Your task to perform on an android device: Show me popular games on the Play Store Image 0: 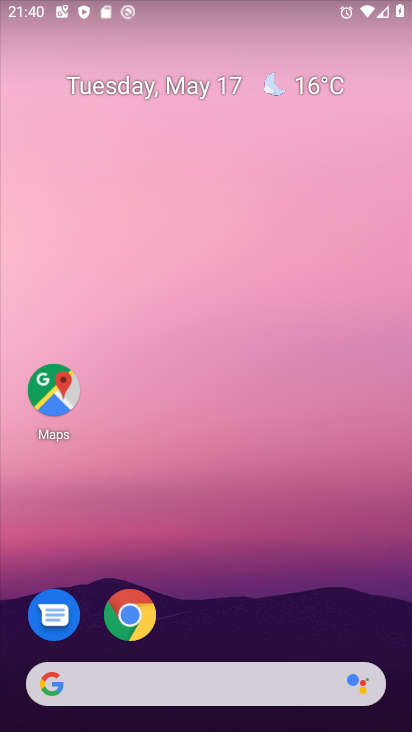
Step 0: drag from (349, 612) to (308, 102)
Your task to perform on an android device: Show me popular games on the Play Store Image 1: 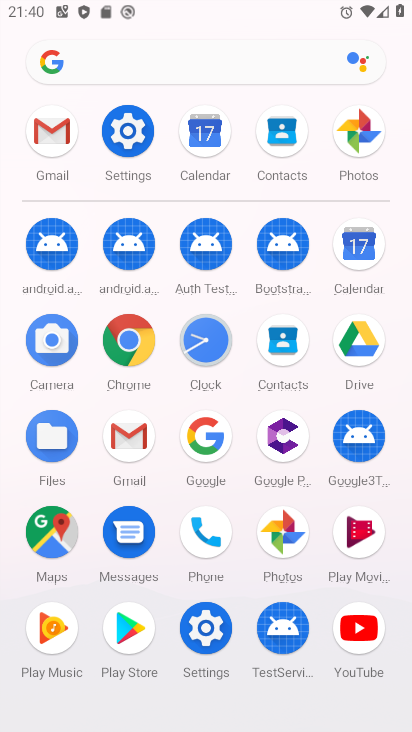
Step 1: click (144, 626)
Your task to perform on an android device: Show me popular games on the Play Store Image 2: 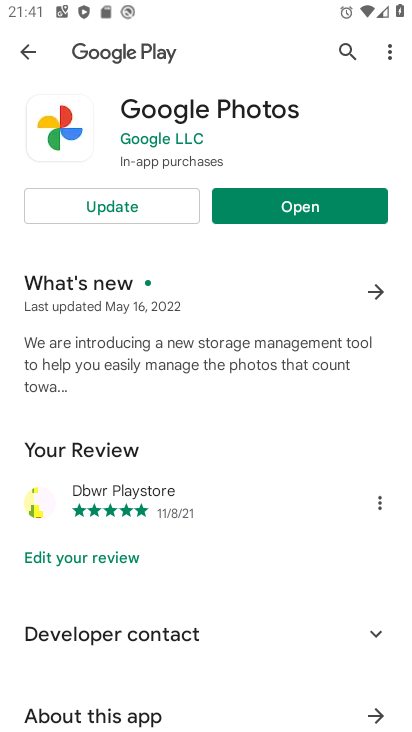
Step 2: click (27, 53)
Your task to perform on an android device: Show me popular games on the Play Store Image 3: 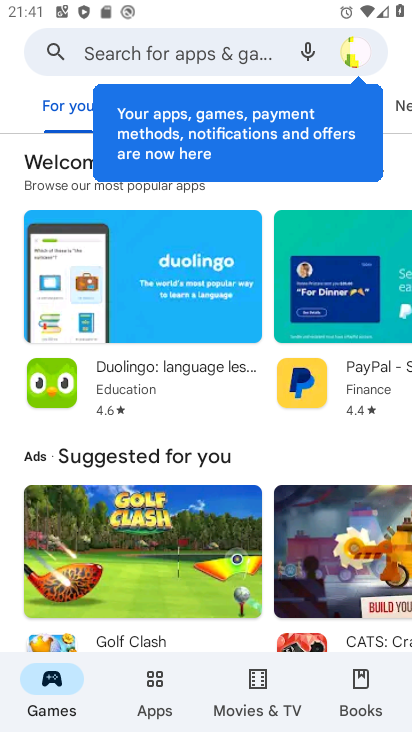
Step 3: click (160, 679)
Your task to perform on an android device: Show me popular games on the Play Store Image 4: 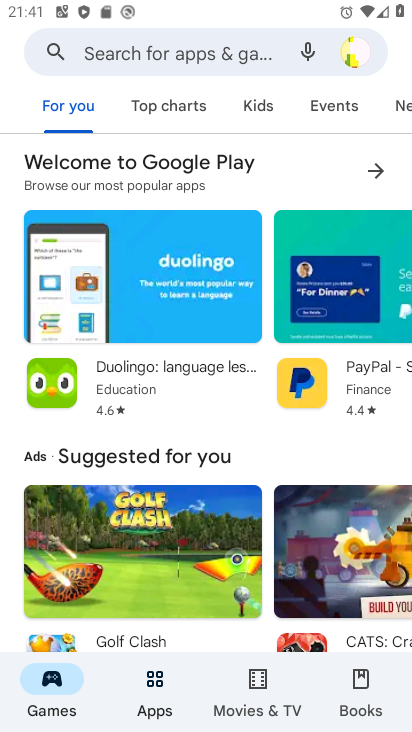
Step 4: drag from (160, 679) to (193, 256)
Your task to perform on an android device: Show me popular games on the Play Store Image 5: 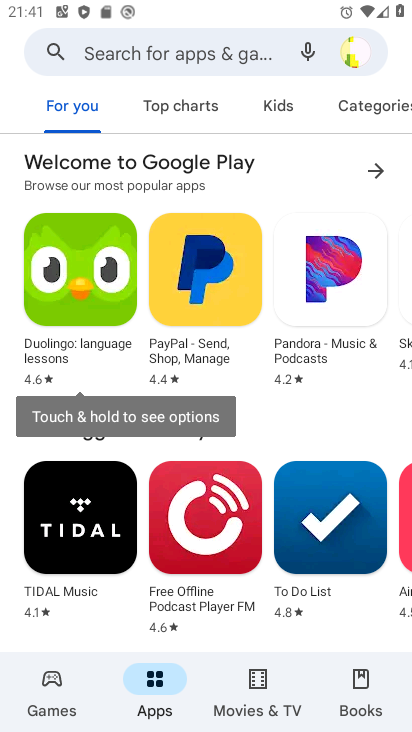
Step 5: click (199, 101)
Your task to perform on an android device: Show me popular games on the Play Store Image 6: 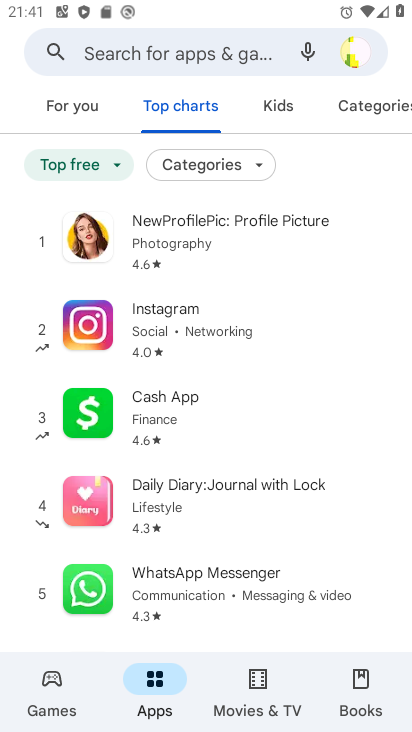
Step 6: task complete